Your task to perform on an android device: turn off sleep mode Image 0: 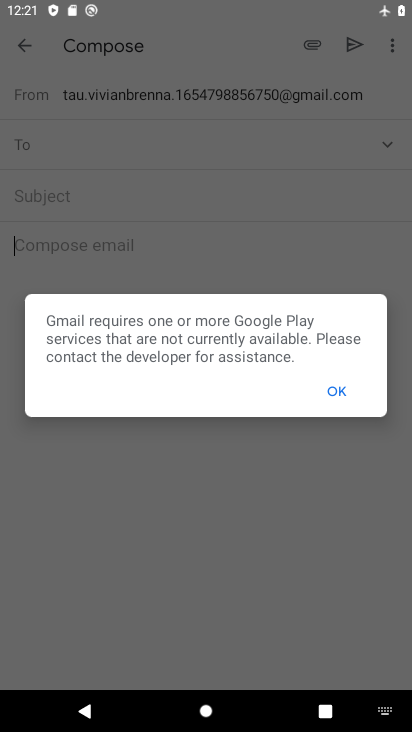
Step 0: press home button
Your task to perform on an android device: turn off sleep mode Image 1: 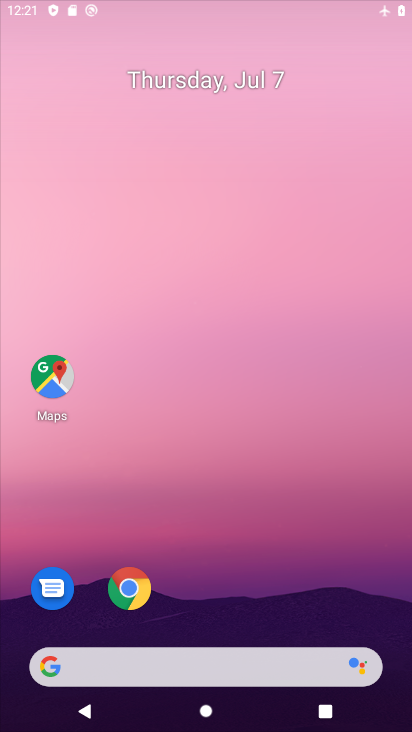
Step 1: drag from (201, 551) to (277, 70)
Your task to perform on an android device: turn off sleep mode Image 2: 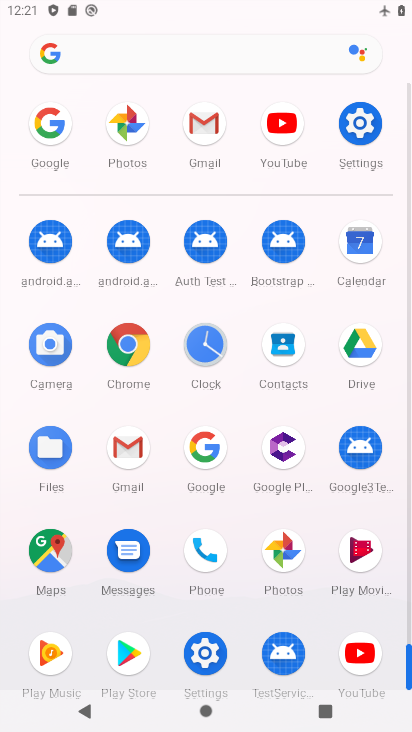
Step 2: click (360, 129)
Your task to perform on an android device: turn off sleep mode Image 3: 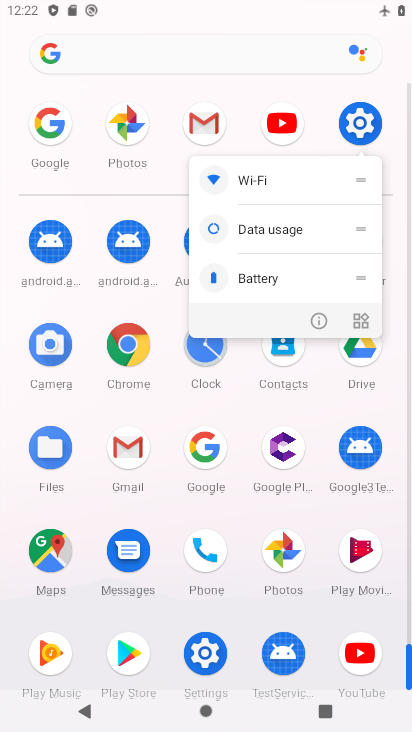
Step 3: click (322, 319)
Your task to perform on an android device: turn off sleep mode Image 4: 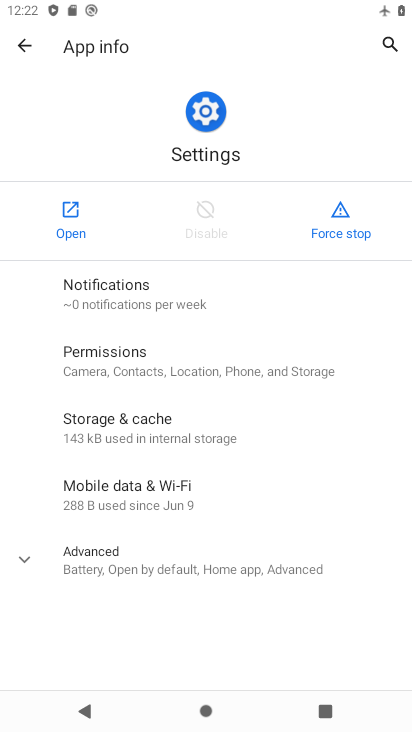
Step 4: click (65, 218)
Your task to perform on an android device: turn off sleep mode Image 5: 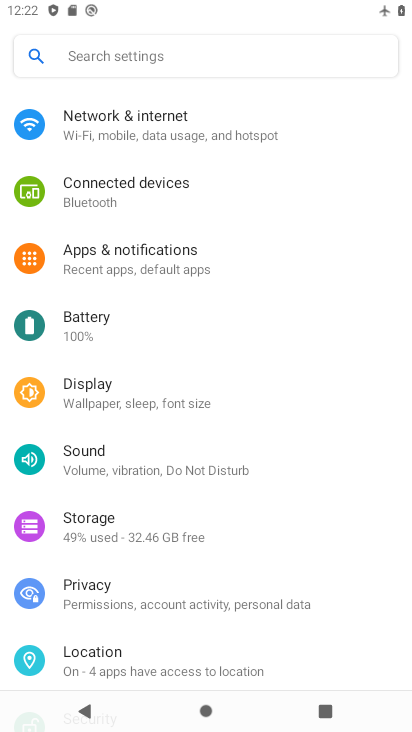
Step 5: click (142, 404)
Your task to perform on an android device: turn off sleep mode Image 6: 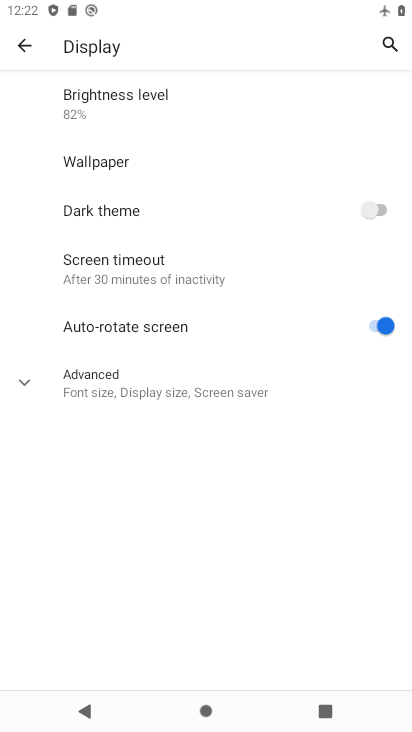
Step 6: drag from (159, 487) to (213, 220)
Your task to perform on an android device: turn off sleep mode Image 7: 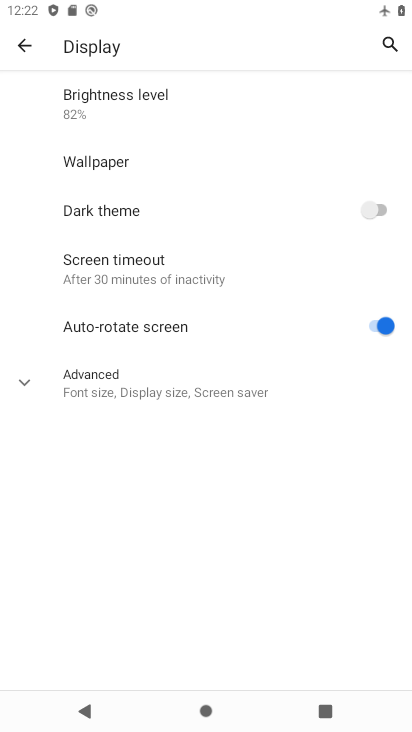
Step 7: click (193, 274)
Your task to perform on an android device: turn off sleep mode Image 8: 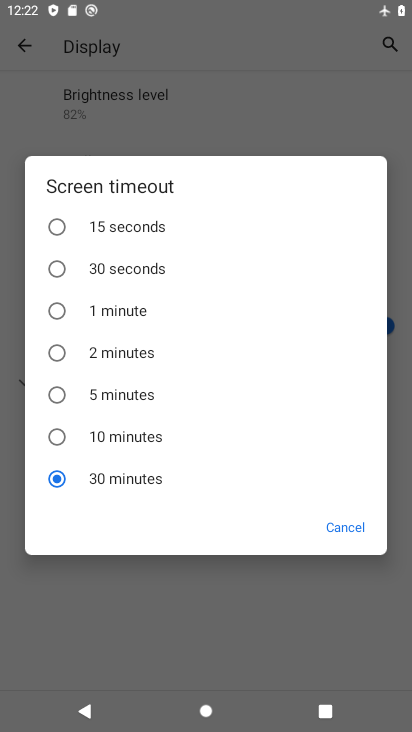
Step 8: task complete